Your task to perform on an android device: turn pop-ups on in chrome Image 0: 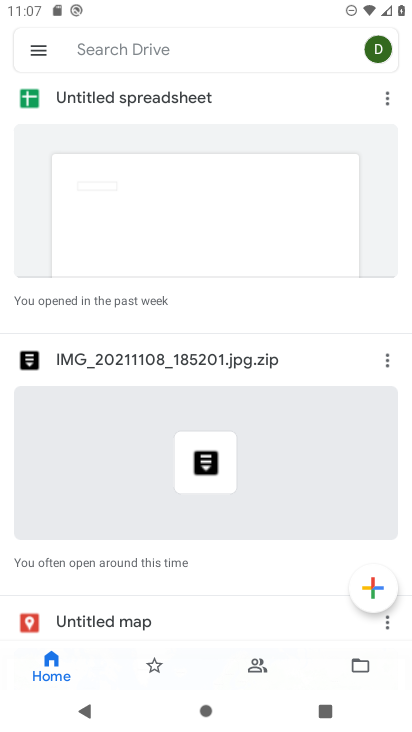
Step 0: press home button
Your task to perform on an android device: turn pop-ups on in chrome Image 1: 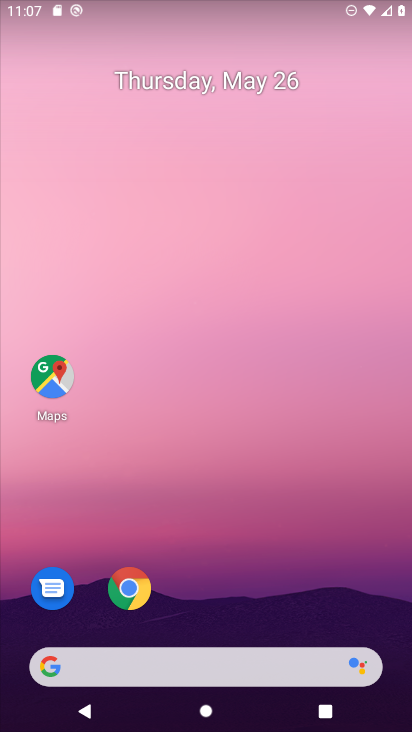
Step 1: click (132, 585)
Your task to perform on an android device: turn pop-ups on in chrome Image 2: 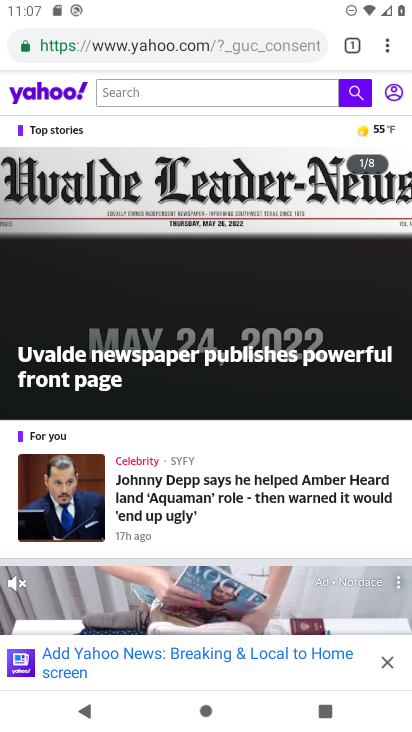
Step 2: click (385, 48)
Your task to perform on an android device: turn pop-ups on in chrome Image 3: 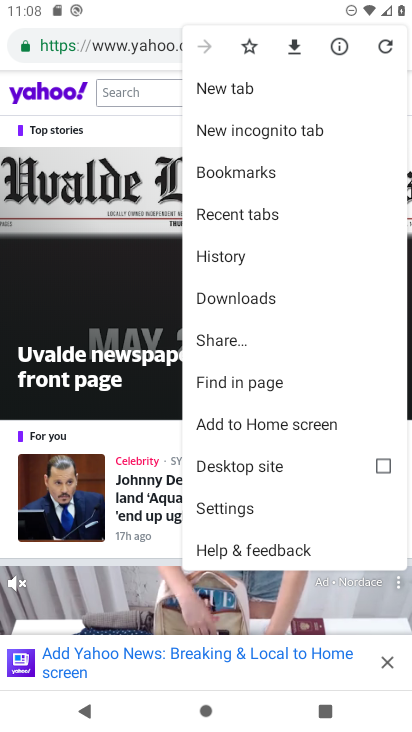
Step 3: click (231, 504)
Your task to perform on an android device: turn pop-ups on in chrome Image 4: 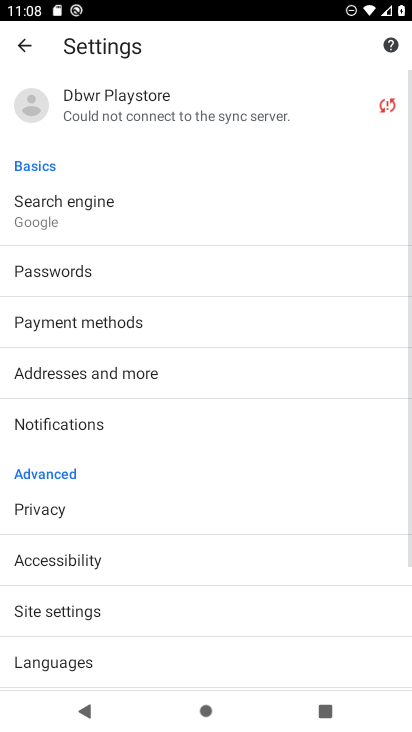
Step 4: drag from (176, 613) to (205, 256)
Your task to perform on an android device: turn pop-ups on in chrome Image 5: 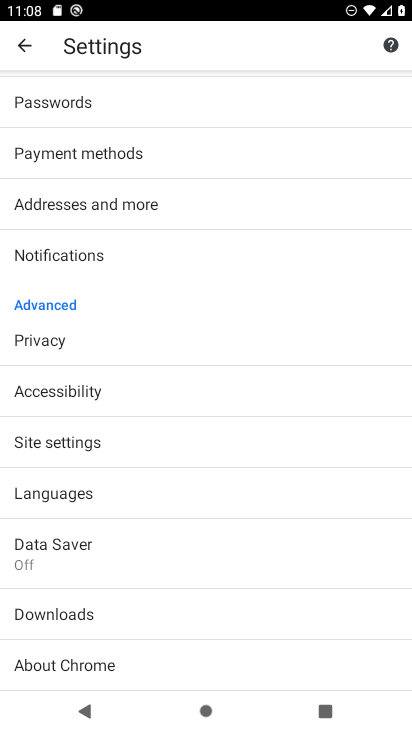
Step 5: click (62, 439)
Your task to perform on an android device: turn pop-ups on in chrome Image 6: 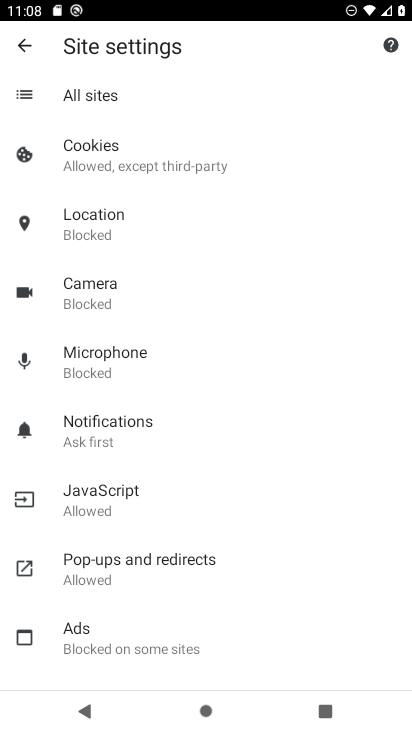
Step 6: click (103, 575)
Your task to perform on an android device: turn pop-ups on in chrome Image 7: 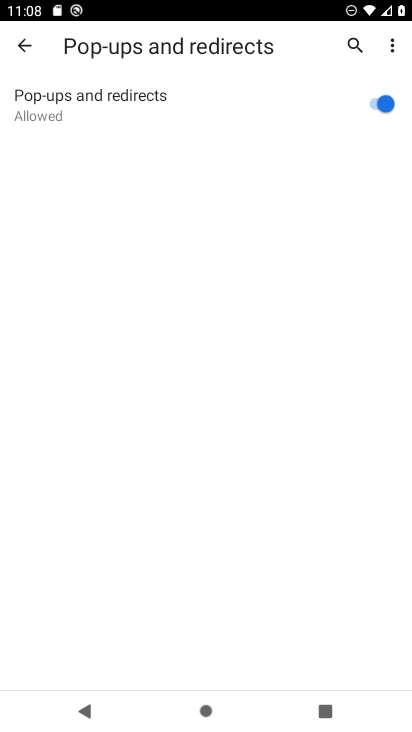
Step 7: task complete